Your task to perform on an android device: Open the stopwatch Image 0: 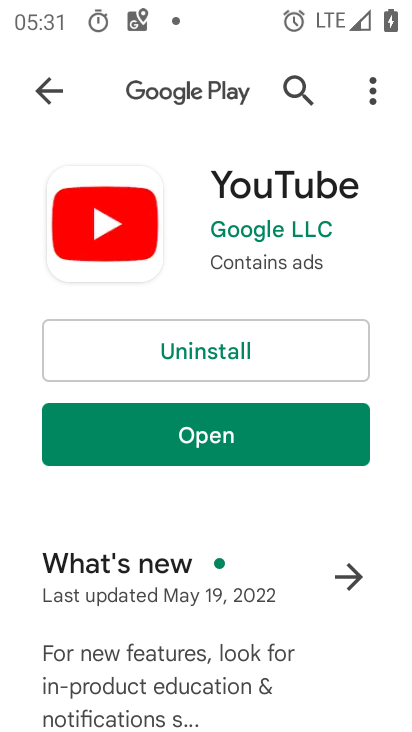
Step 0: press back button
Your task to perform on an android device: Open the stopwatch Image 1: 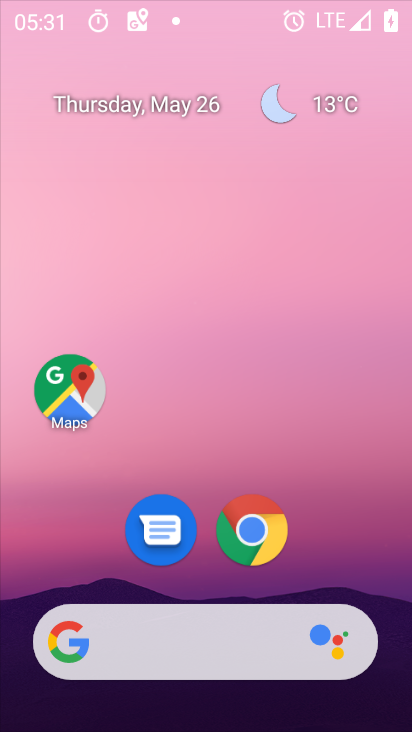
Step 1: press home button
Your task to perform on an android device: Open the stopwatch Image 2: 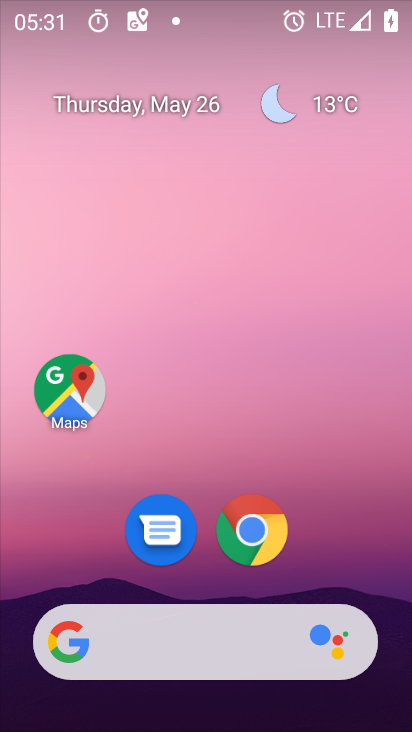
Step 2: drag from (274, 645) to (281, 24)
Your task to perform on an android device: Open the stopwatch Image 3: 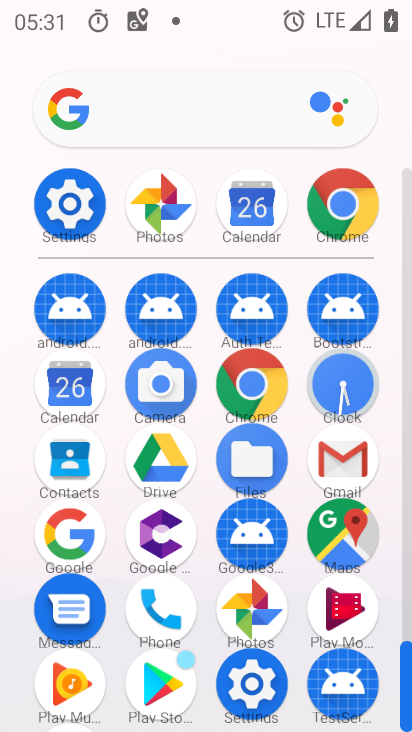
Step 3: click (350, 382)
Your task to perform on an android device: Open the stopwatch Image 4: 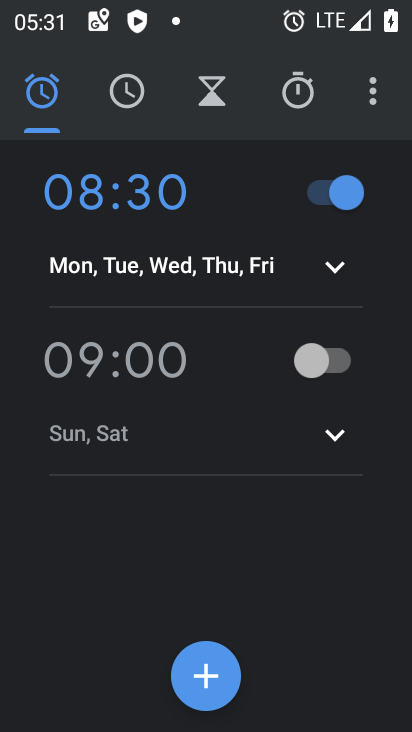
Step 4: click (304, 99)
Your task to perform on an android device: Open the stopwatch Image 5: 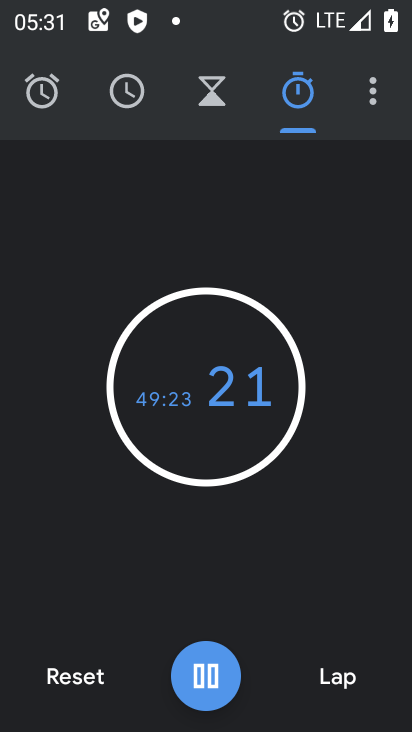
Step 5: task complete